Your task to perform on an android device: delete the emails in spam in the gmail app Image 0: 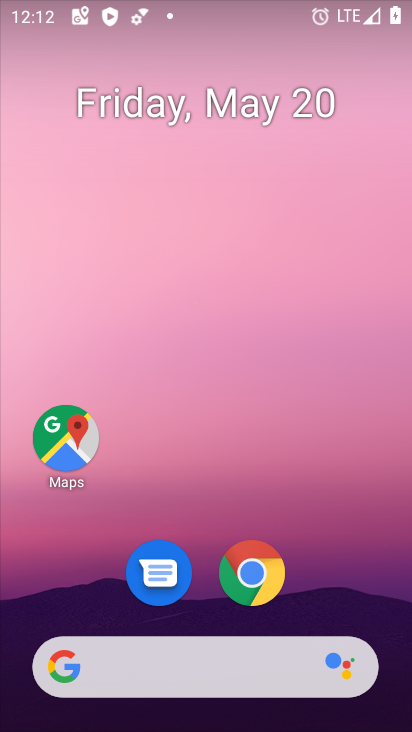
Step 0: drag from (210, 606) to (270, 118)
Your task to perform on an android device: delete the emails in spam in the gmail app Image 1: 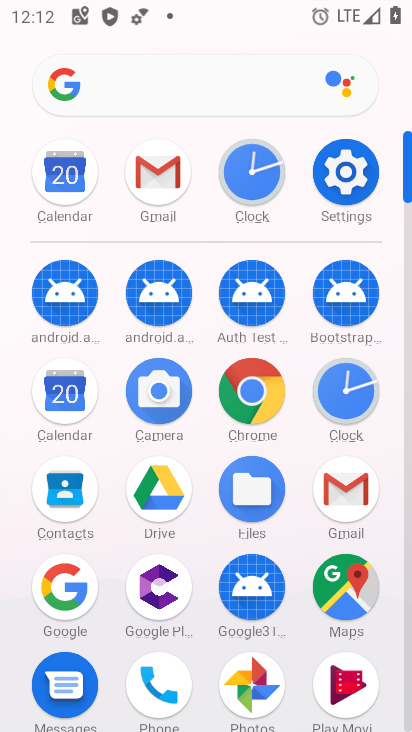
Step 1: click (349, 504)
Your task to perform on an android device: delete the emails in spam in the gmail app Image 2: 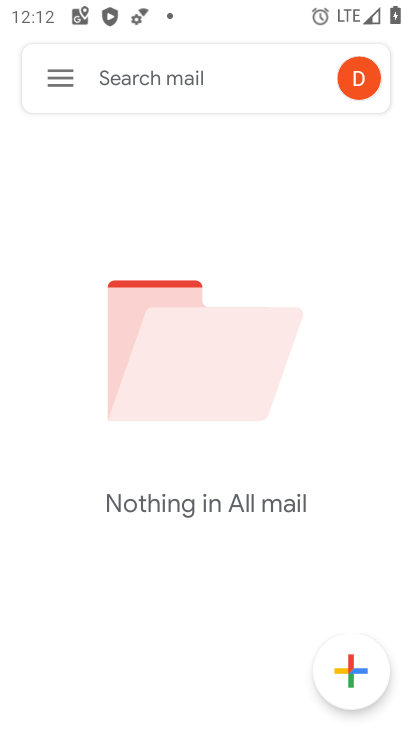
Step 2: click (75, 76)
Your task to perform on an android device: delete the emails in spam in the gmail app Image 3: 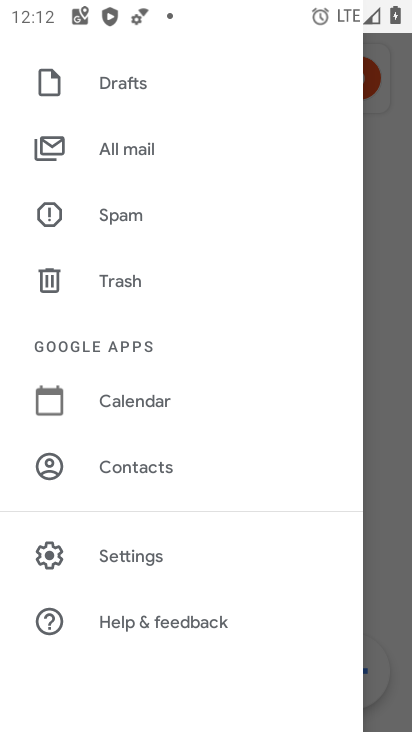
Step 3: click (131, 223)
Your task to perform on an android device: delete the emails in spam in the gmail app Image 4: 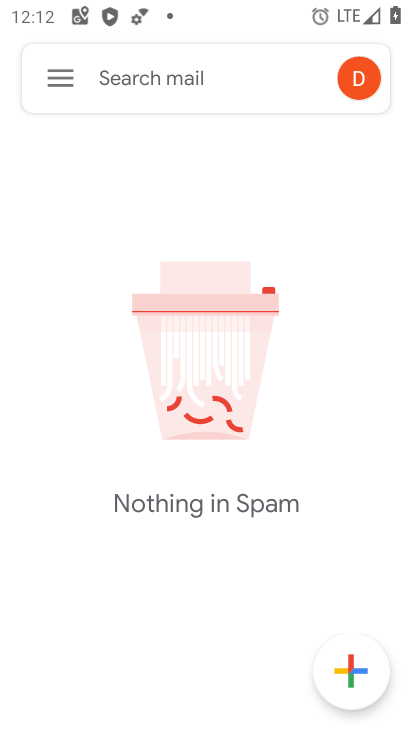
Step 4: task complete